Your task to perform on an android device: turn off priority inbox in the gmail app Image 0: 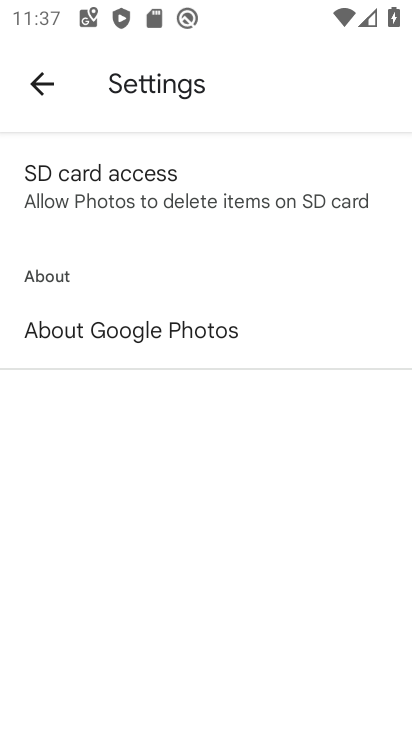
Step 0: press home button
Your task to perform on an android device: turn off priority inbox in the gmail app Image 1: 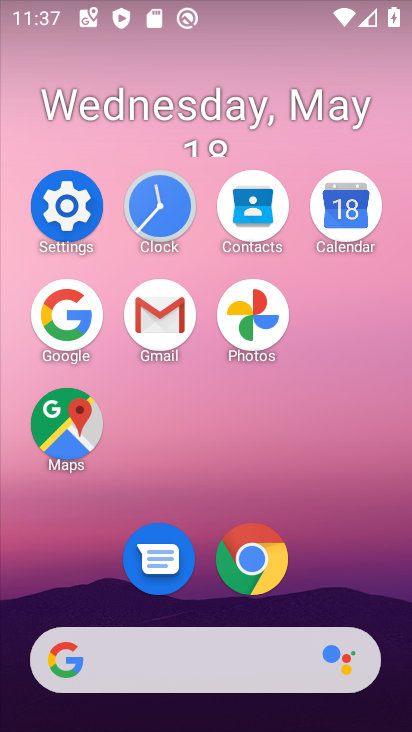
Step 1: click (176, 337)
Your task to perform on an android device: turn off priority inbox in the gmail app Image 2: 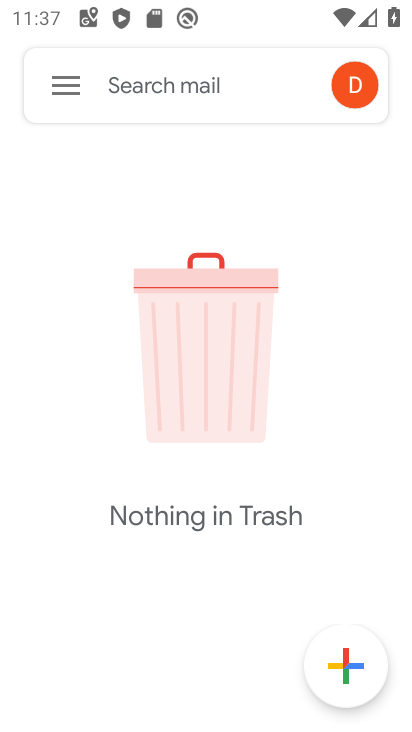
Step 2: click (55, 88)
Your task to perform on an android device: turn off priority inbox in the gmail app Image 3: 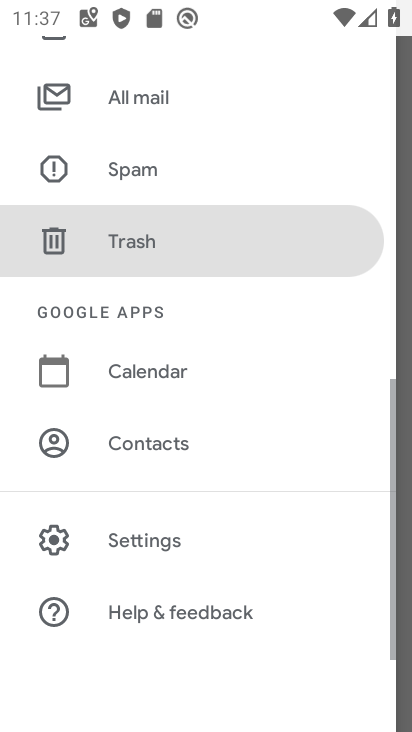
Step 3: drag from (233, 512) to (237, 233)
Your task to perform on an android device: turn off priority inbox in the gmail app Image 4: 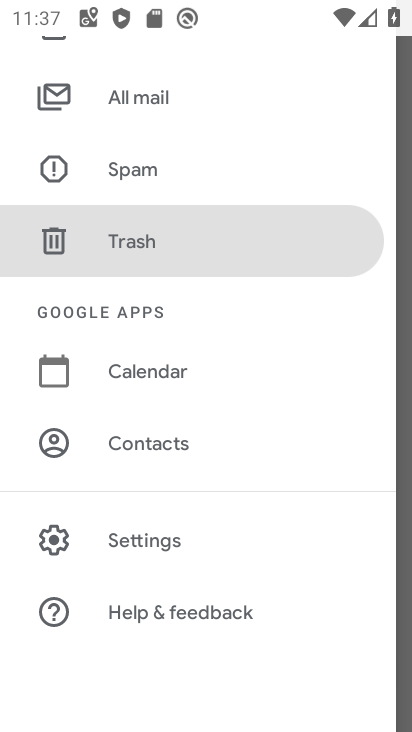
Step 4: click (199, 544)
Your task to perform on an android device: turn off priority inbox in the gmail app Image 5: 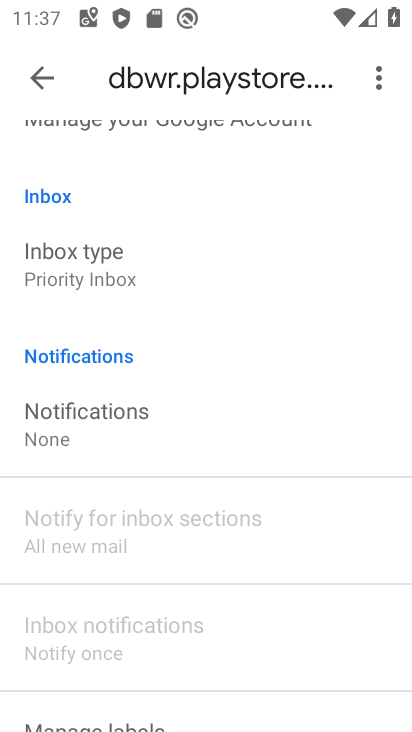
Step 5: click (128, 266)
Your task to perform on an android device: turn off priority inbox in the gmail app Image 6: 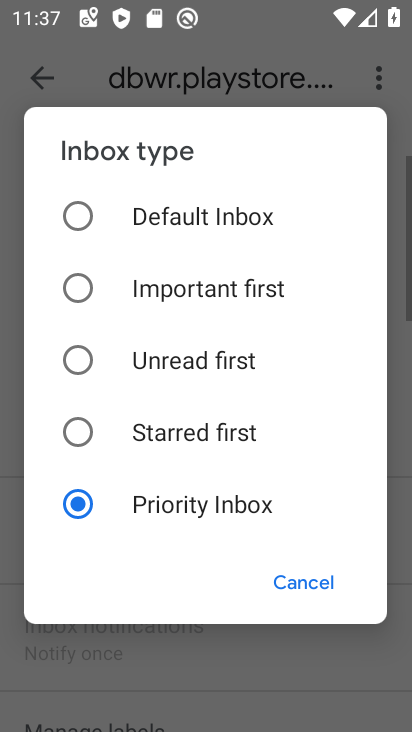
Step 6: click (195, 206)
Your task to perform on an android device: turn off priority inbox in the gmail app Image 7: 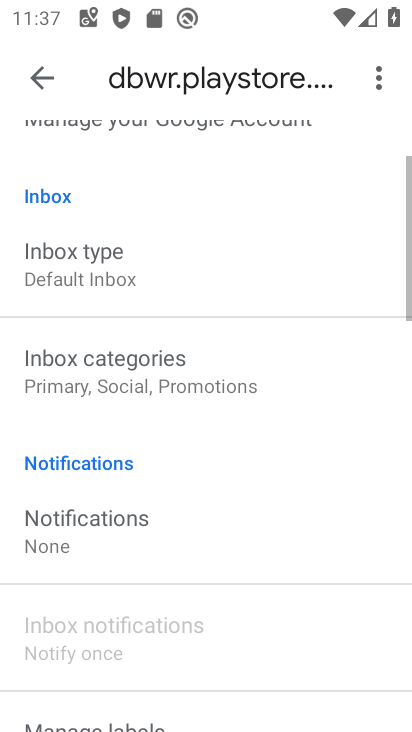
Step 7: task complete